Your task to perform on an android device: Go to settings Image 0: 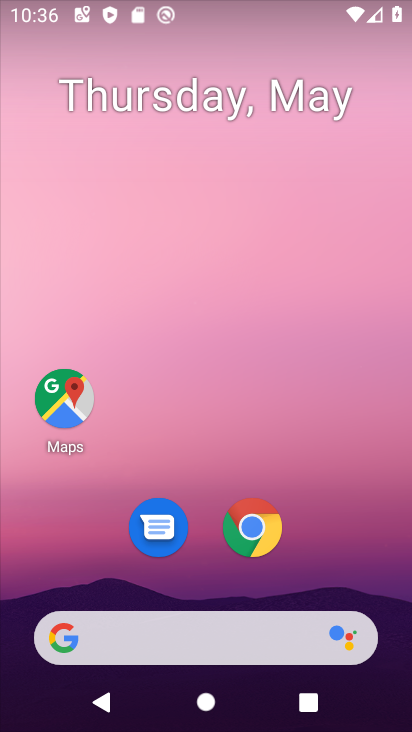
Step 0: drag from (346, 537) to (329, 96)
Your task to perform on an android device: Go to settings Image 1: 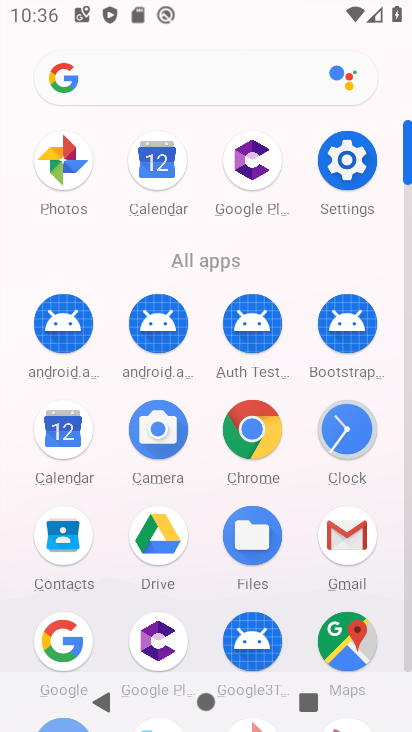
Step 1: click (367, 164)
Your task to perform on an android device: Go to settings Image 2: 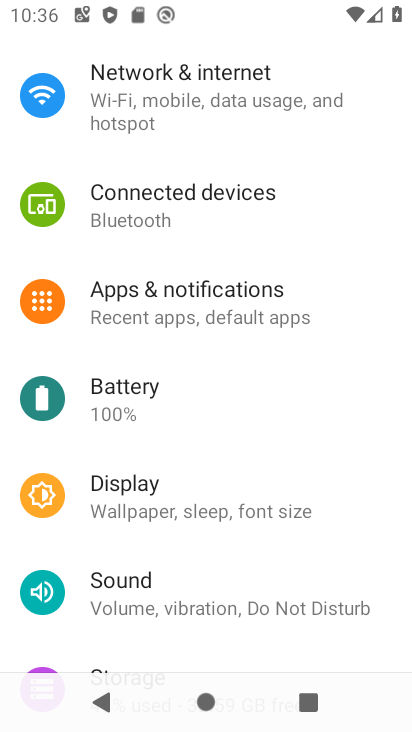
Step 2: task complete